Your task to perform on an android device: move an email to a new category in the gmail app Image 0: 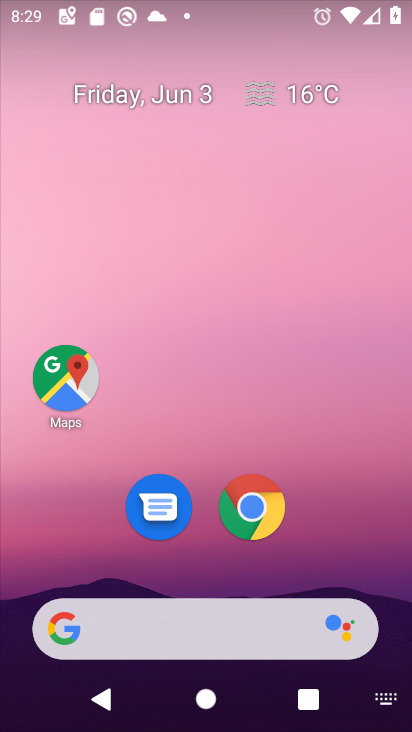
Step 0: drag from (311, 495) to (87, 48)
Your task to perform on an android device: move an email to a new category in the gmail app Image 1: 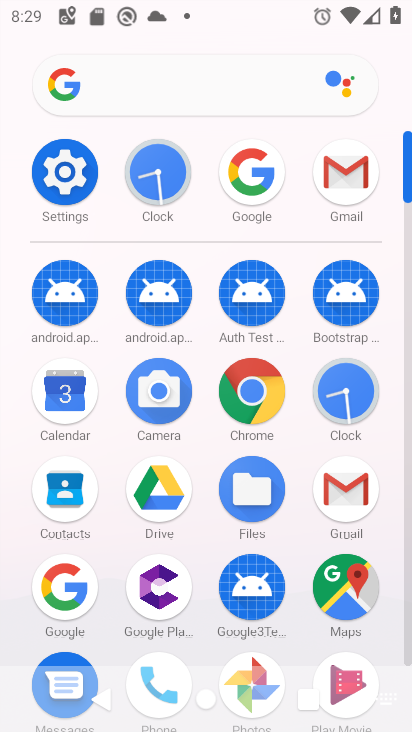
Step 1: click (368, 485)
Your task to perform on an android device: move an email to a new category in the gmail app Image 2: 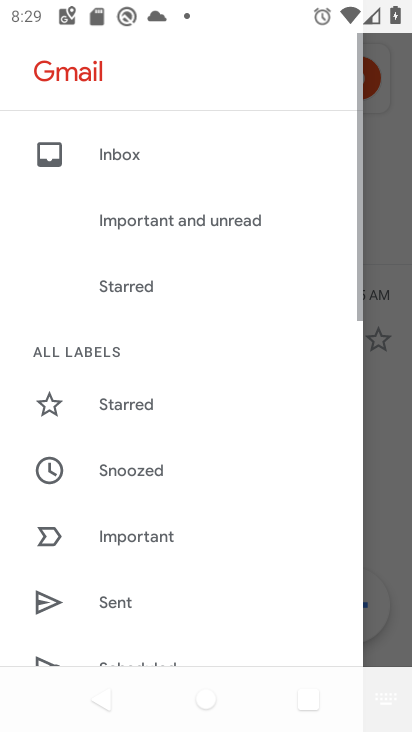
Step 2: click (122, 150)
Your task to perform on an android device: move an email to a new category in the gmail app Image 3: 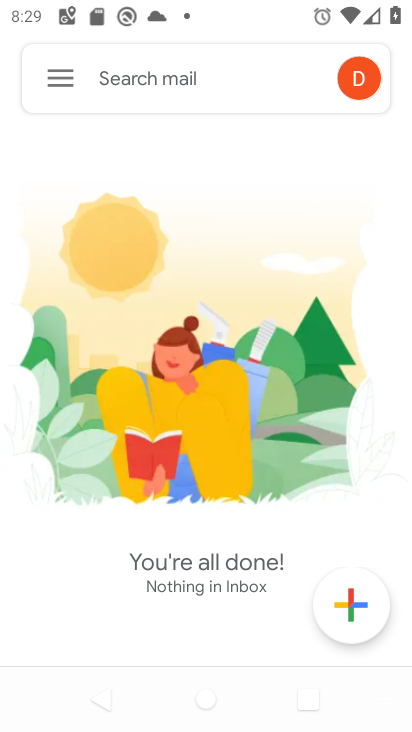
Step 3: task complete